Your task to perform on an android device: Do I have any events this weekend? Image 0: 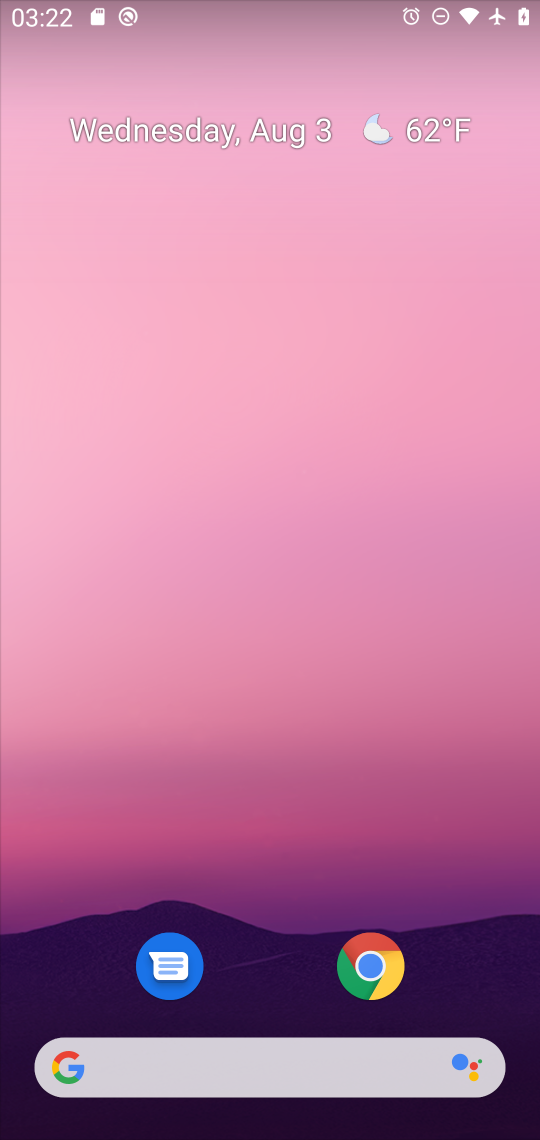
Step 0: drag from (241, 971) to (229, 320)
Your task to perform on an android device: Do I have any events this weekend? Image 1: 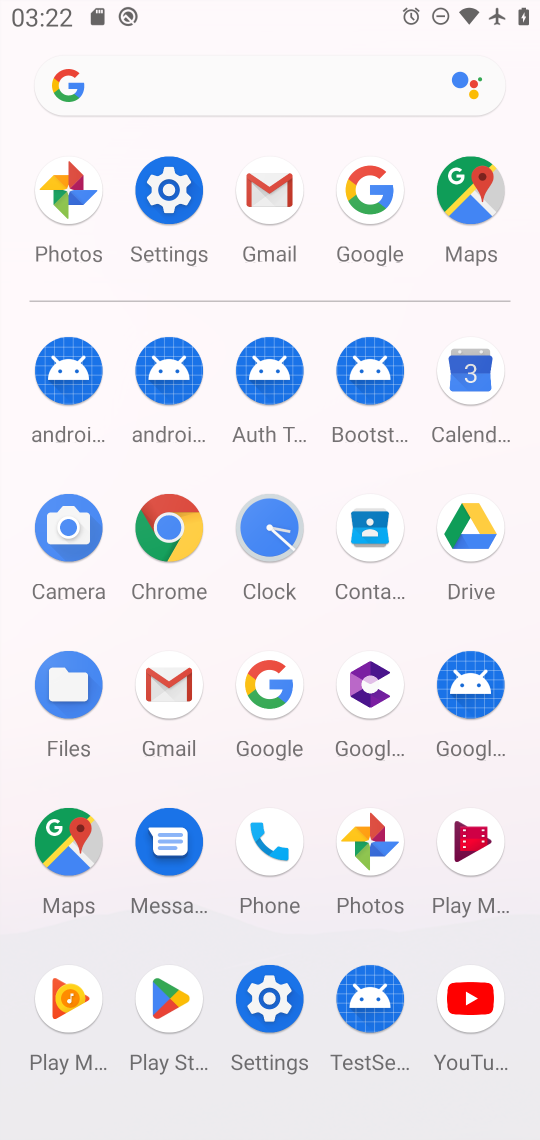
Step 1: click (450, 388)
Your task to perform on an android device: Do I have any events this weekend? Image 2: 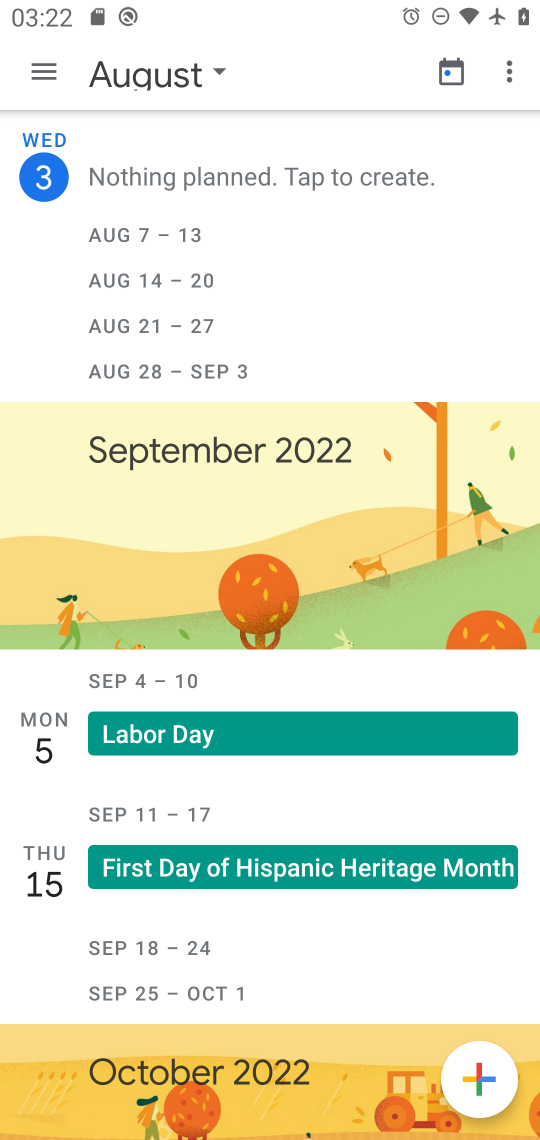
Step 2: click (207, 90)
Your task to perform on an android device: Do I have any events this weekend? Image 3: 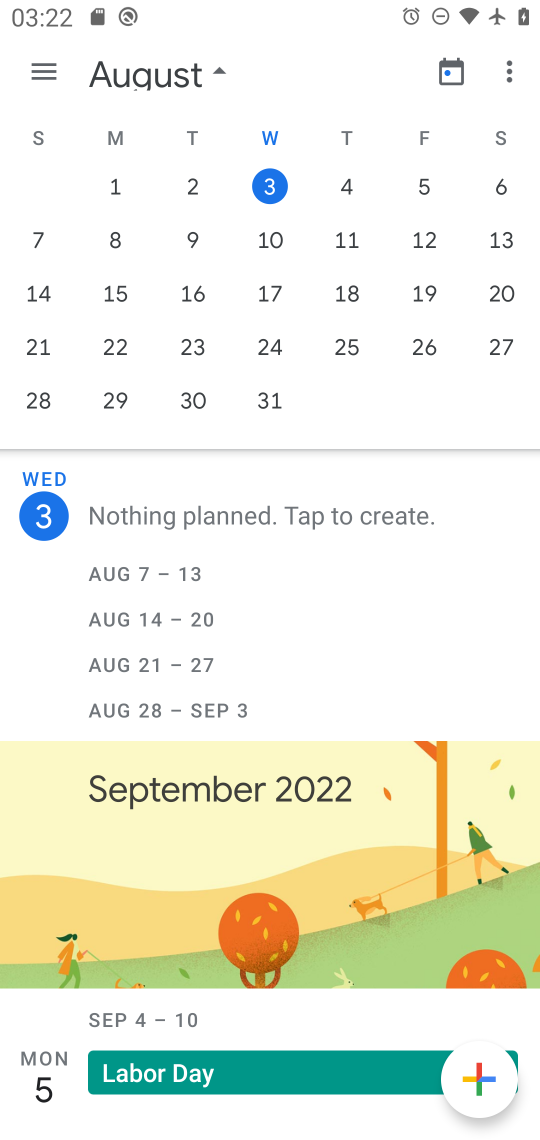
Step 3: click (495, 179)
Your task to perform on an android device: Do I have any events this weekend? Image 4: 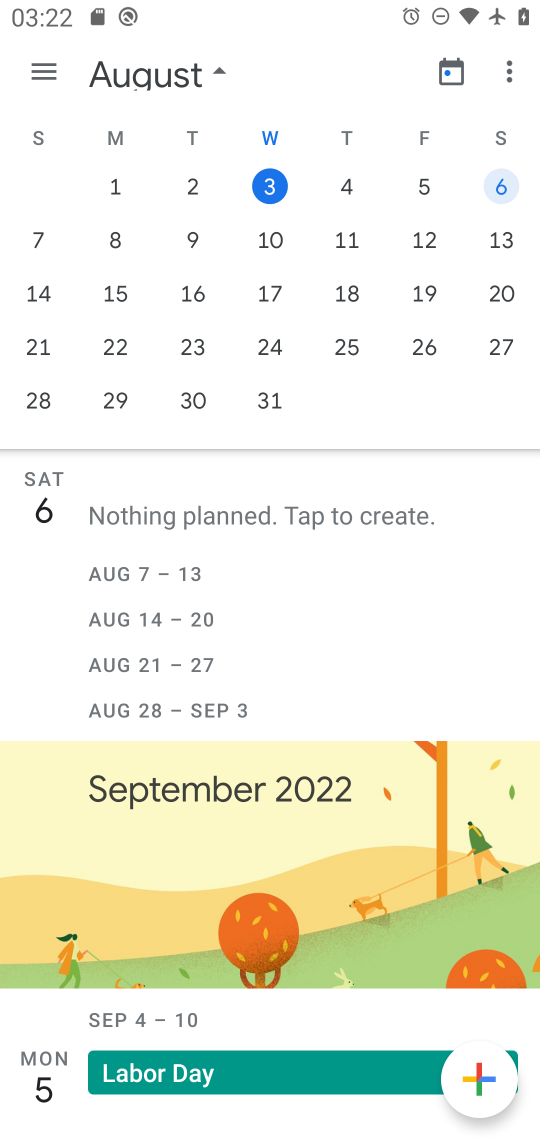
Step 4: task complete